Your task to perform on an android device: manage bookmarks in the chrome app Image 0: 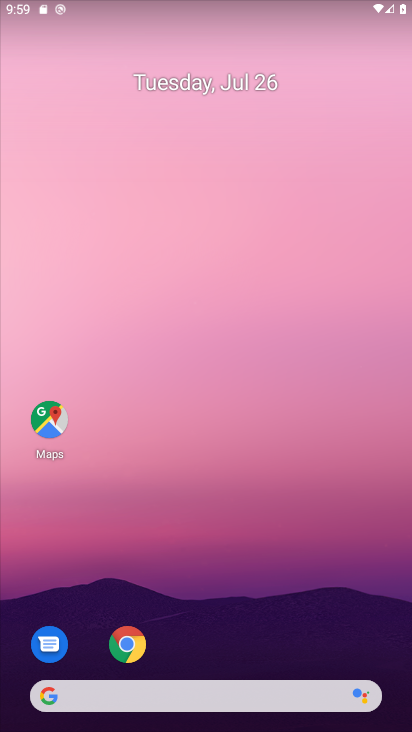
Step 0: click (123, 647)
Your task to perform on an android device: manage bookmarks in the chrome app Image 1: 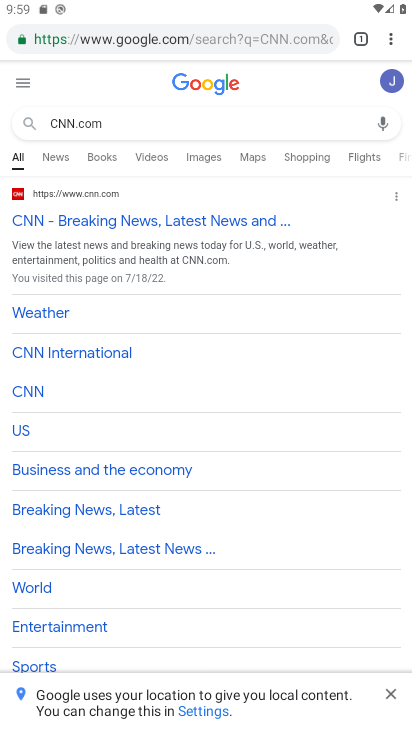
Step 1: click (392, 37)
Your task to perform on an android device: manage bookmarks in the chrome app Image 2: 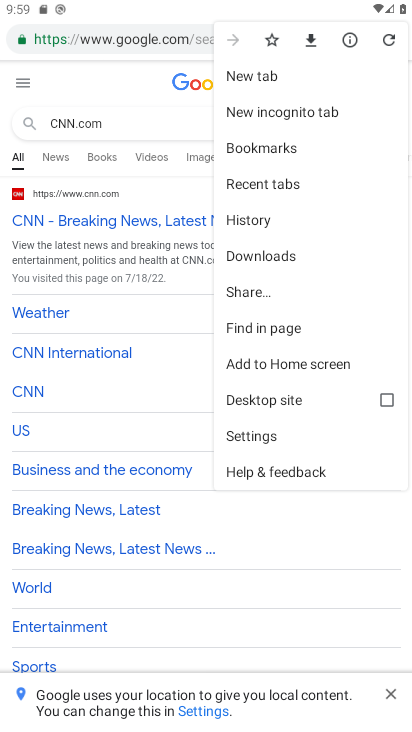
Step 2: click (252, 153)
Your task to perform on an android device: manage bookmarks in the chrome app Image 3: 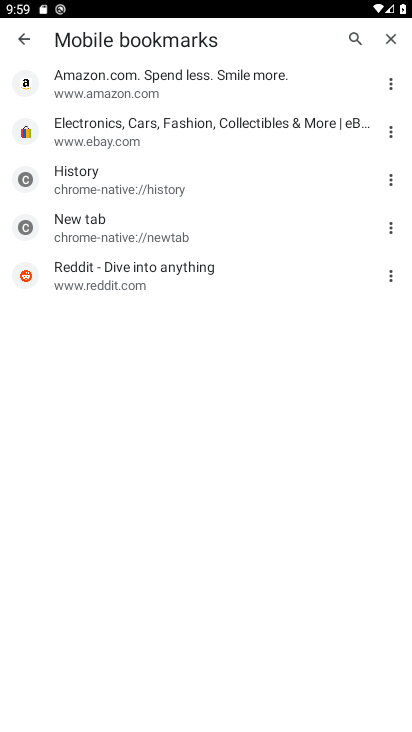
Step 3: click (390, 84)
Your task to perform on an android device: manage bookmarks in the chrome app Image 4: 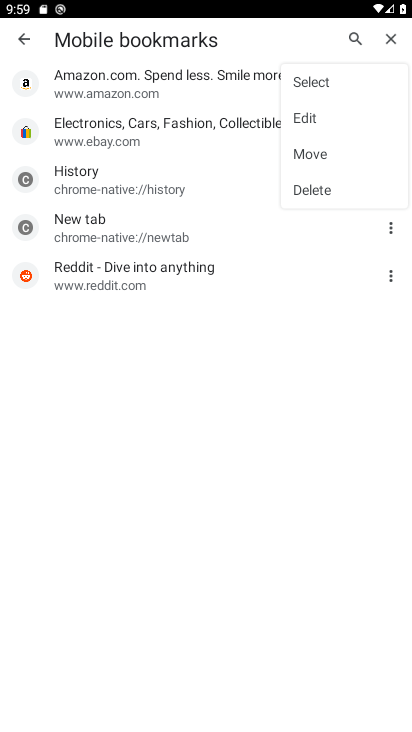
Step 4: click (334, 81)
Your task to perform on an android device: manage bookmarks in the chrome app Image 5: 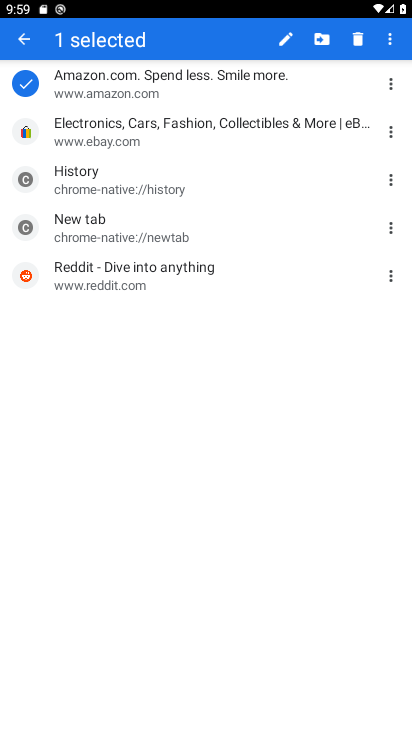
Step 5: click (262, 134)
Your task to perform on an android device: manage bookmarks in the chrome app Image 6: 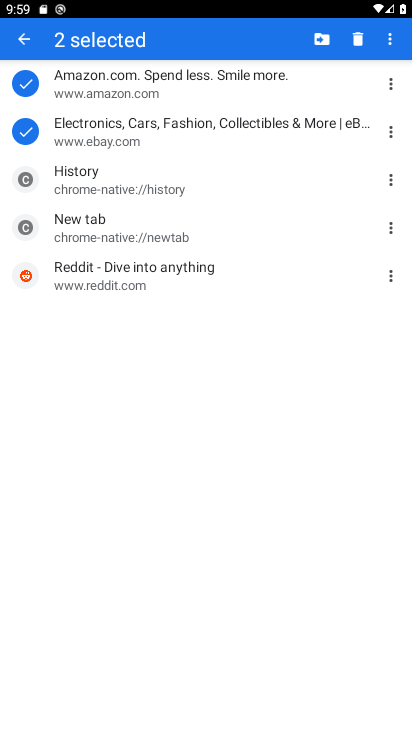
Step 6: click (122, 224)
Your task to perform on an android device: manage bookmarks in the chrome app Image 7: 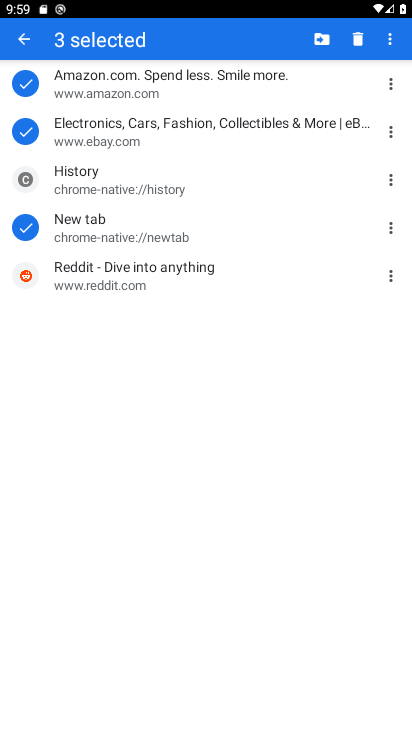
Step 7: click (131, 271)
Your task to perform on an android device: manage bookmarks in the chrome app Image 8: 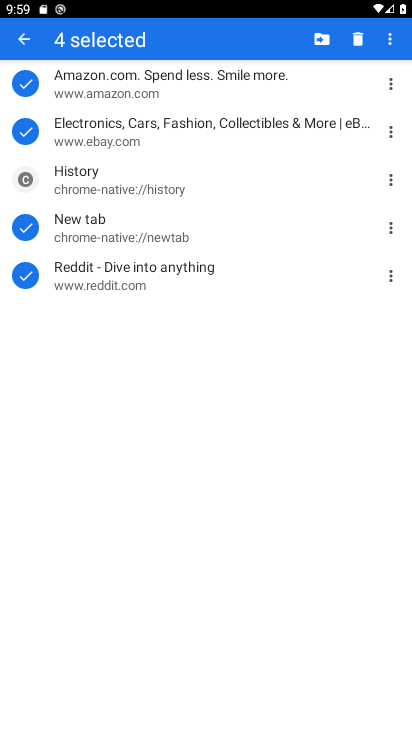
Step 8: click (317, 41)
Your task to perform on an android device: manage bookmarks in the chrome app Image 9: 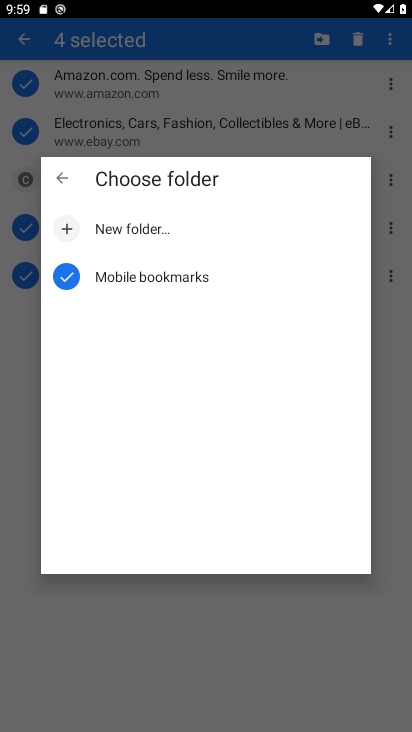
Step 9: click (145, 228)
Your task to perform on an android device: manage bookmarks in the chrome app Image 10: 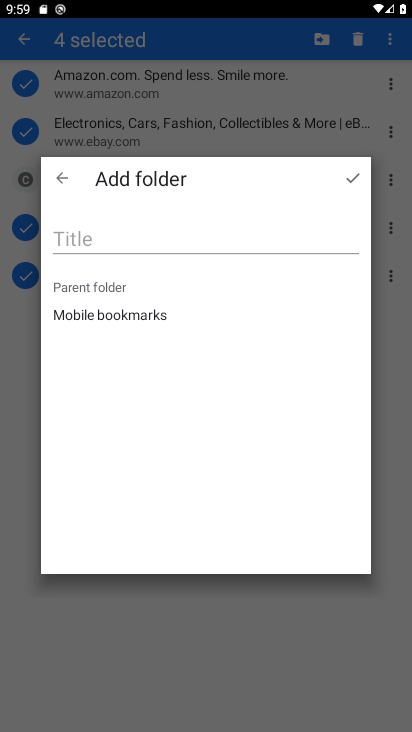
Step 10: click (183, 226)
Your task to perform on an android device: manage bookmarks in the chrome app Image 11: 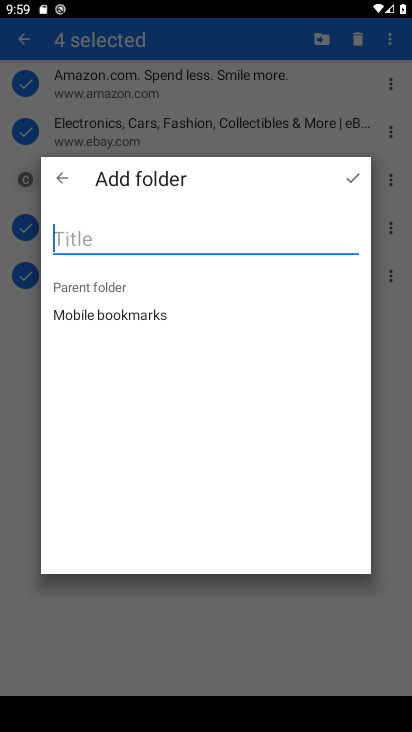
Step 11: type "stallone"
Your task to perform on an android device: manage bookmarks in the chrome app Image 12: 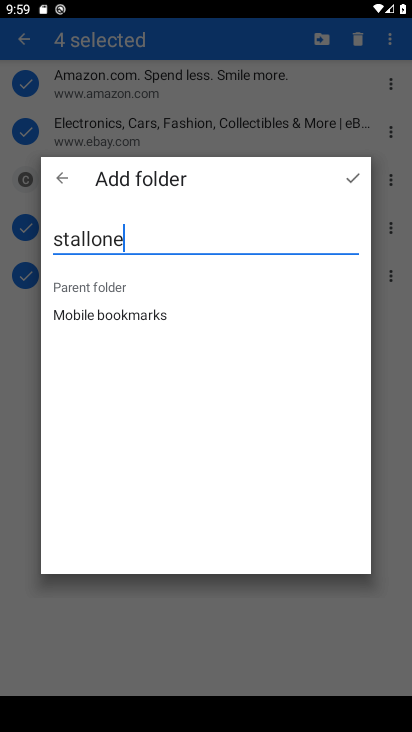
Step 12: click (347, 172)
Your task to perform on an android device: manage bookmarks in the chrome app Image 13: 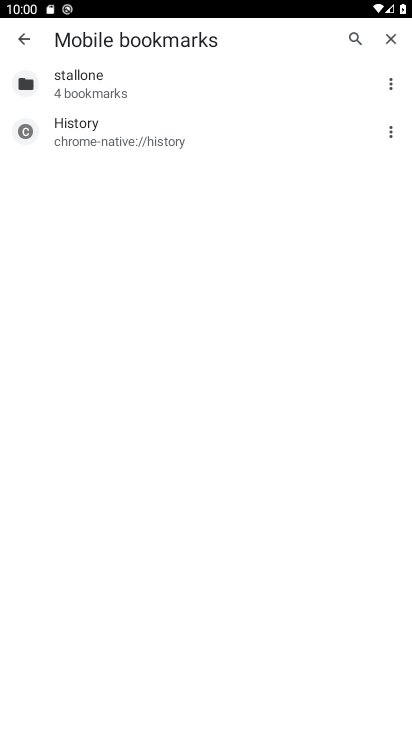
Step 13: task complete